Your task to perform on an android device: find which apps use the phone's location Image 0: 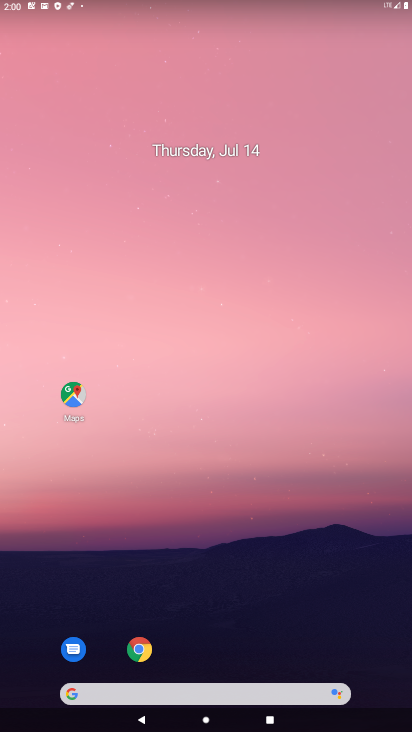
Step 0: drag from (377, 655) to (300, 1)
Your task to perform on an android device: find which apps use the phone's location Image 1: 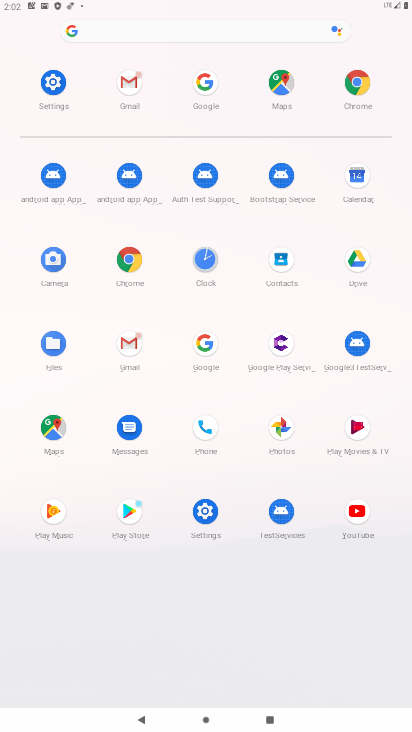
Step 1: click (203, 500)
Your task to perform on an android device: find which apps use the phone's location Image 2: 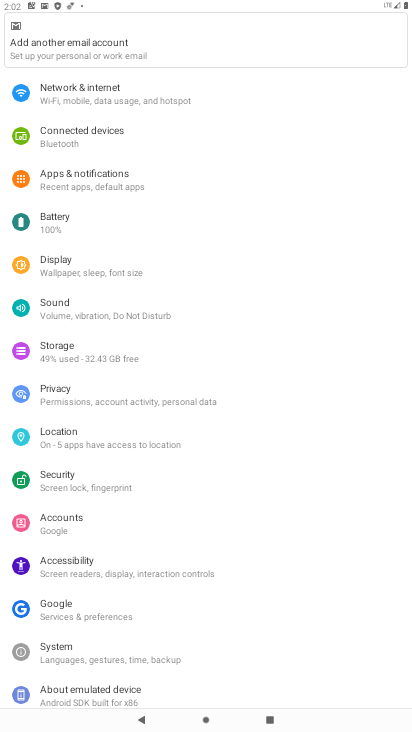
Step 2: click (63, 435)
Your task to perform on an android device: find which apps use the phone's location Image 3: 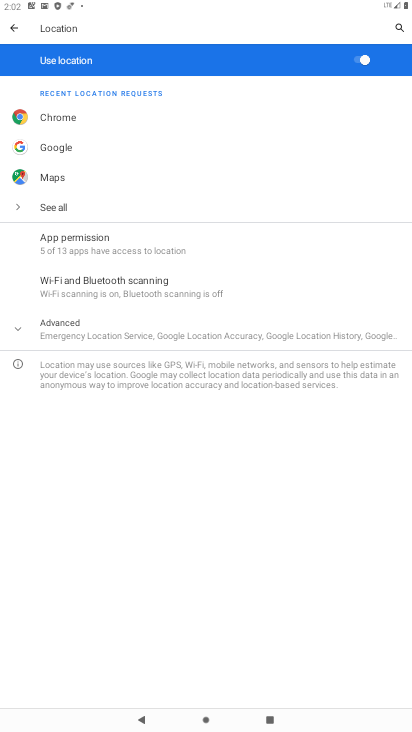
Step 3: click (71, 256)
Your task to perform on an android device: find which apps use the phone's location Image 4: 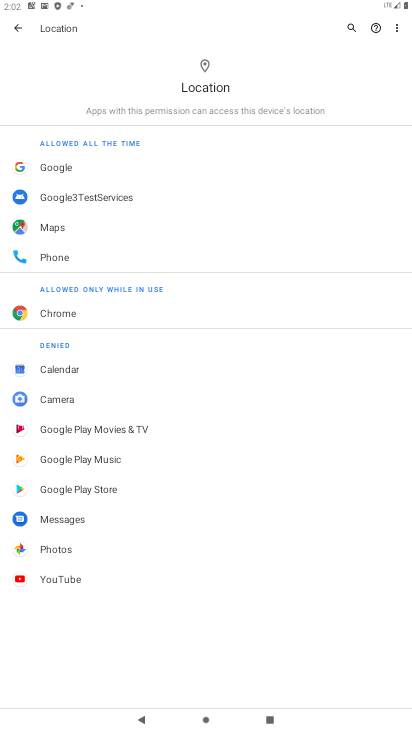
Step 4: click (44, 253)
Your task to perform on an android device: find which apps use the phone's location Image 5: 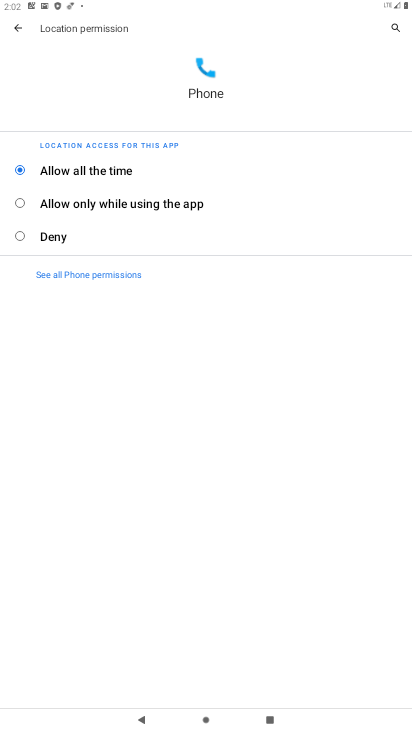
Step 5: task complete